Your task to perform on an android device: toggle pop-ups in chrome Image 0: 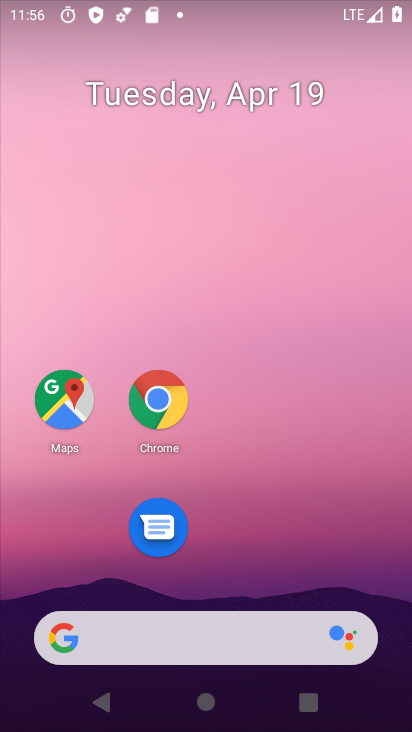
Step 0: drag from (267, 613) to (154, 132)
Your task to perform on an android device: toggle pop-ups in chrome Image 1: 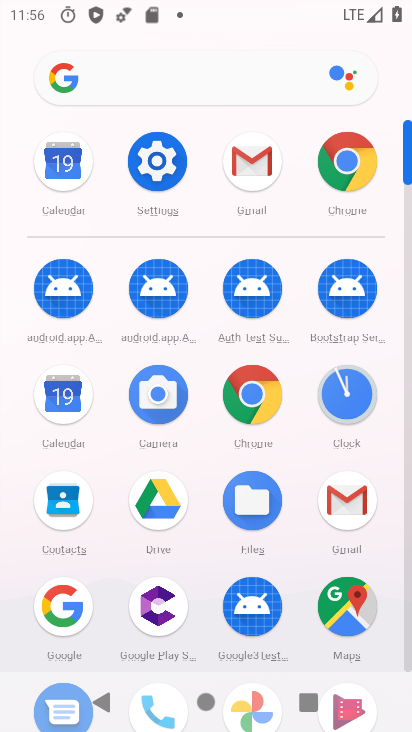
Step 1: click (263, 387)
Your task to perform on an android device: toggle pop-ups in chrome Image 2: 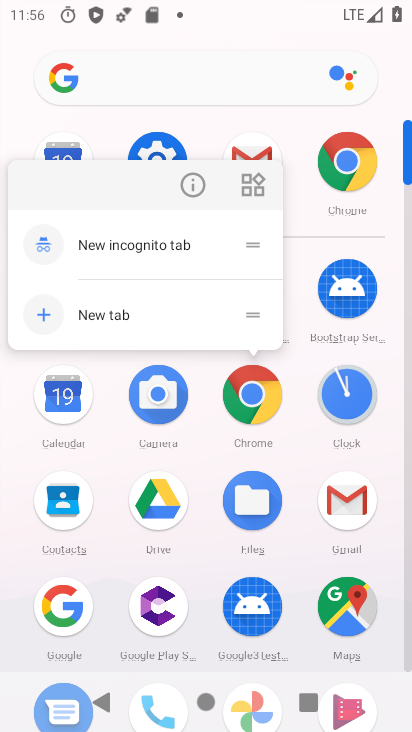
Step 2: click (263, 376)
Your task to perform on an android device: toggle pop-ups in chrome Image 3: 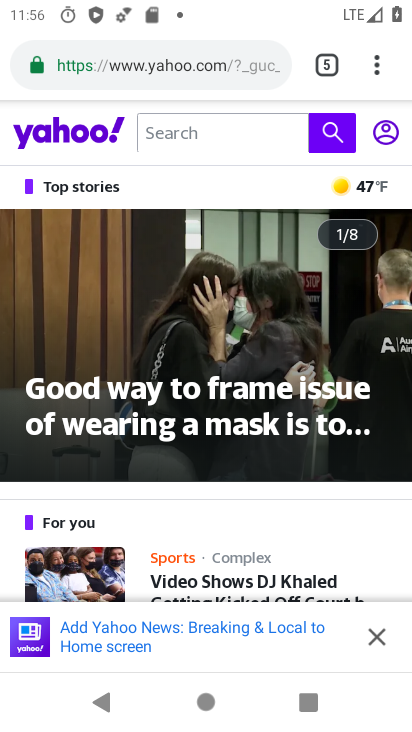
Step 3: click (377, 60)
Your task to perform on an android device: toggle pop-ups in chrome Image 4: 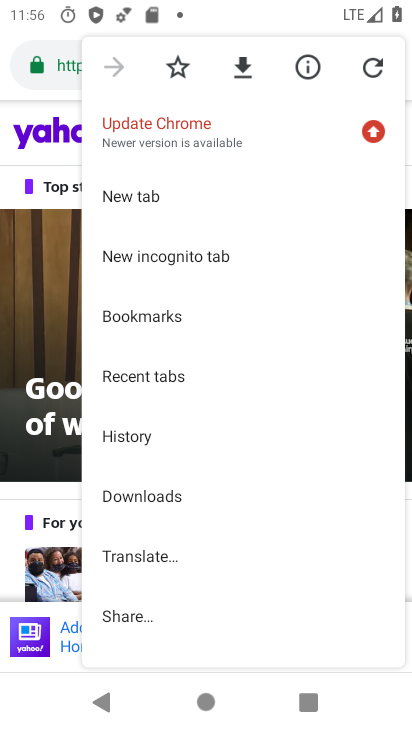
Step 4: drag from (233, 480) to (293, 181)
Your task to perform on an android device: toggle pop-ups in chrome Image 5: 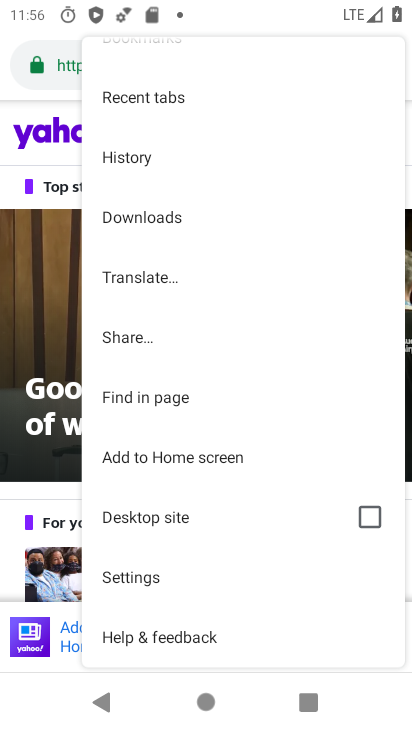
Step 5: click (159, 565)
Your task to perform on an android device: toggle pop-ups in chrome Image 6: 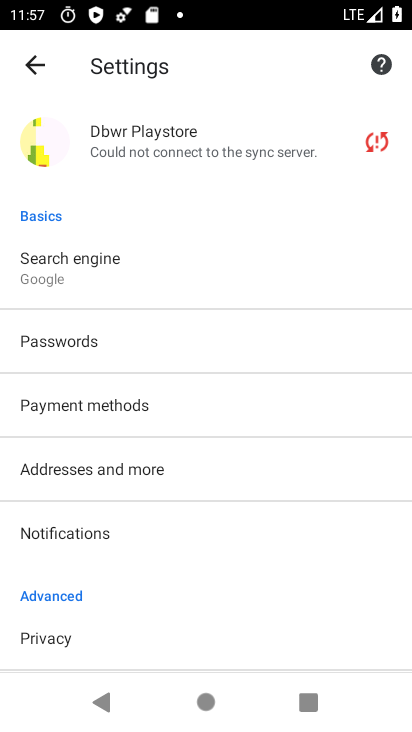
Step 6: drag from (100, 596) to (104, 298)
Your task to perform on an android device: toggle pop-ups in chrome Image 7: 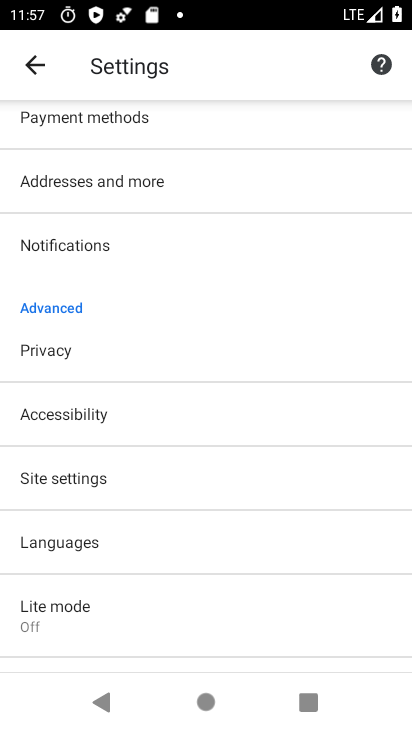
Step 7: click (63, 464)
Your task to perform on an android device: toggle pop-ups in chrome Image 8: 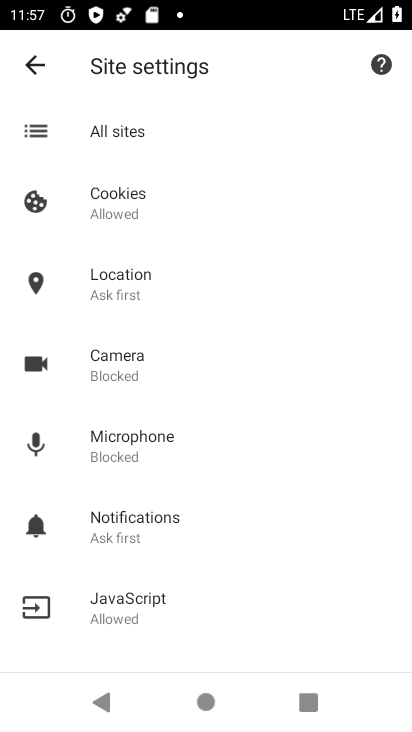
Step 8: drag from (173, 549) to (166, 404)
Your task to perform on an android device: toggle pop-ups in chrome Image 9: 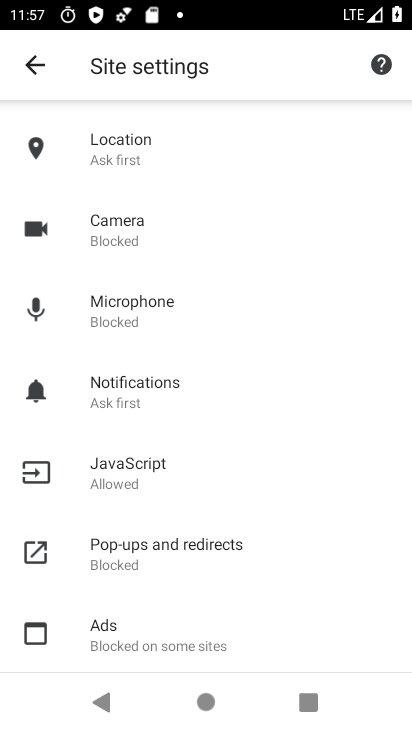
Step 9: click (111, 550)
Your task to perform on an android device: toggle pop-ups in chrome Image 10: 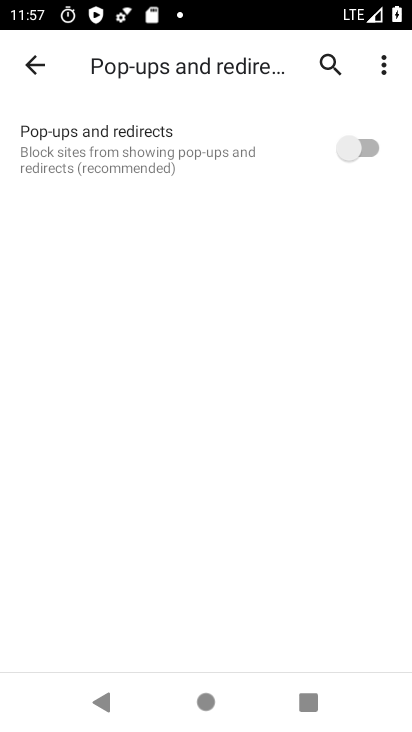
Step 10: task complete